Your task to perform on an android device: Open Chrome and go to the settings page Image 0: 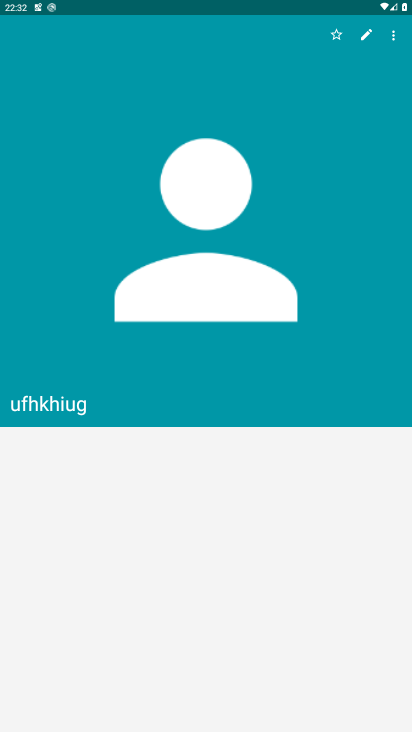
Step 0: press home button
Your task to perform on an android device: Open Chrome and go to the settings page Image 1: 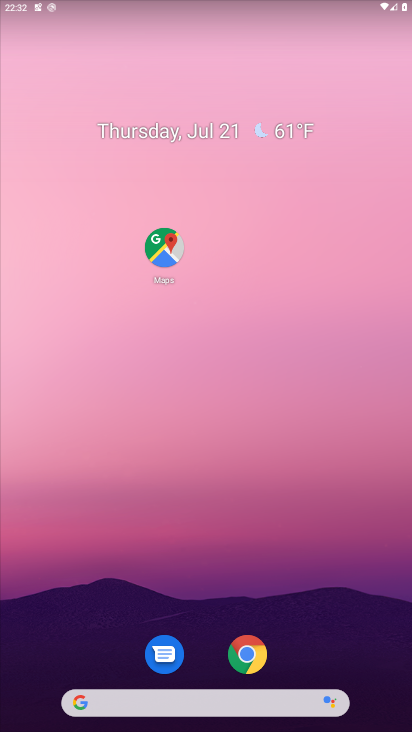
Step 1: click (242, 654)
Your task to perform on an android device: Open Chrome and go to the settings page Image 2: 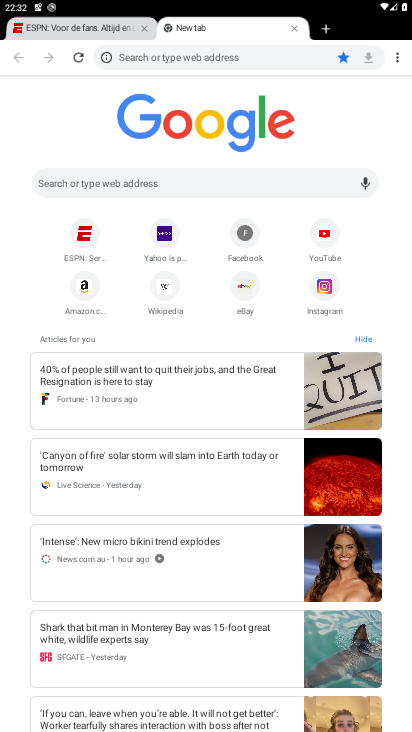
Step 2: click (393, 61)
Your task to perform on an android device: Open Chrome and go to the settings page Image 3: 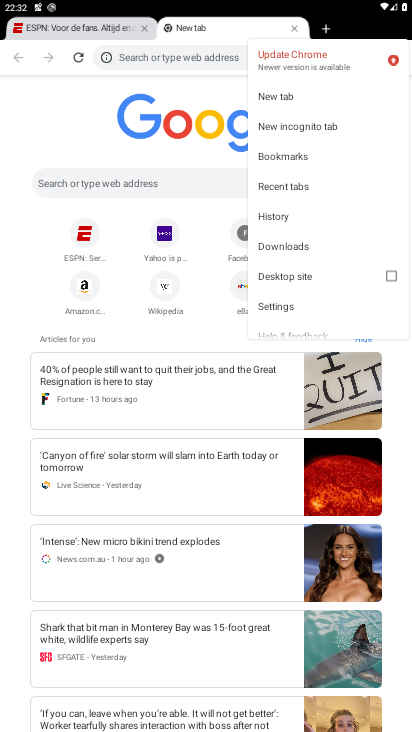
Step 3: click (270, 307)
Your task to perform on an android device: Open Chrome and go to the settings page Image 4: 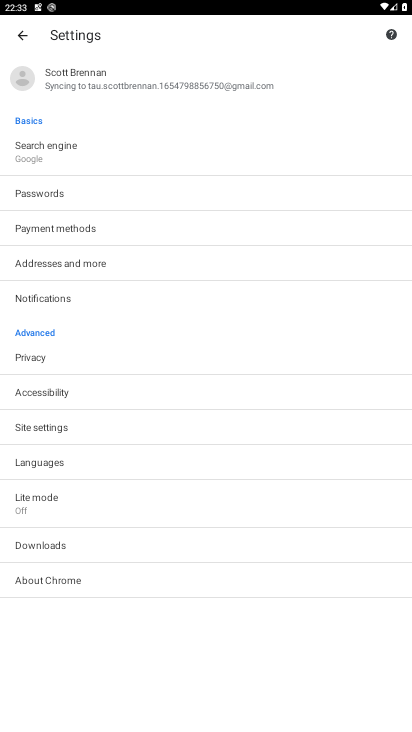
Step 4: task complete